Your task to perform on an android device: turn smart compose on in the gmail app Image 0: 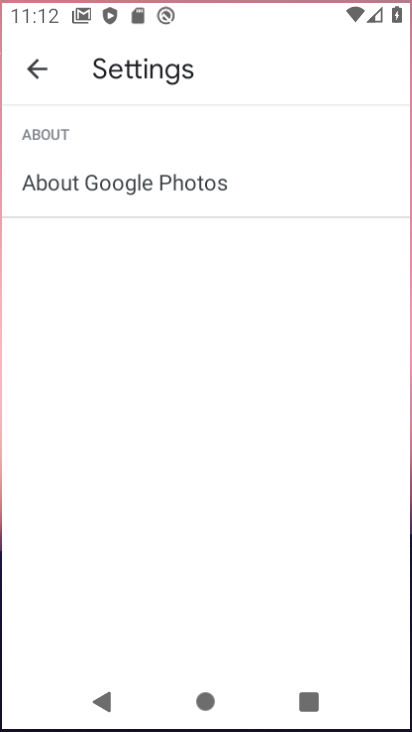
Step 0: press home button
Your task to perform on an android device: turn smart compose on in the gmail app Image 1: 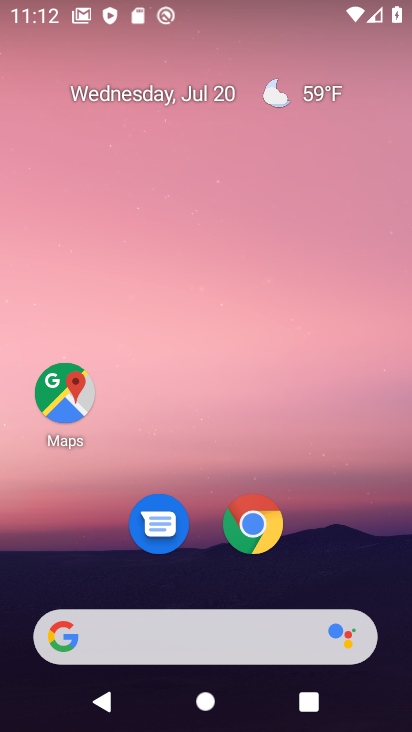
Step 1: drag from (179, 628) to (315, 92)
Your task to perform on an android device: turn smart compose on in the gmail app Image 2: 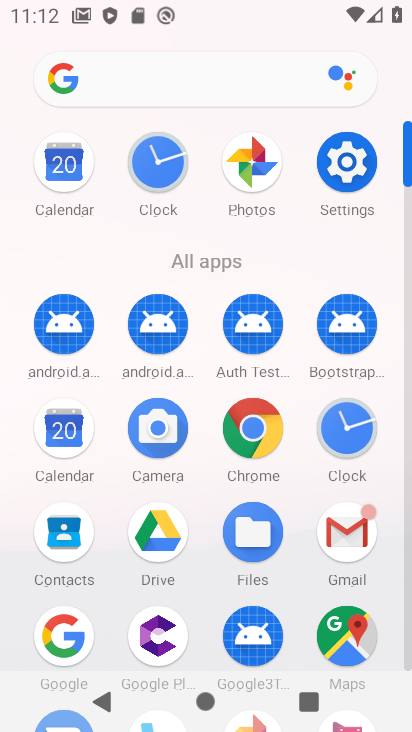
Step 2: click (340, 530)
Your task to perform on an android device: turn smart compose on in the gmail app Image 3: 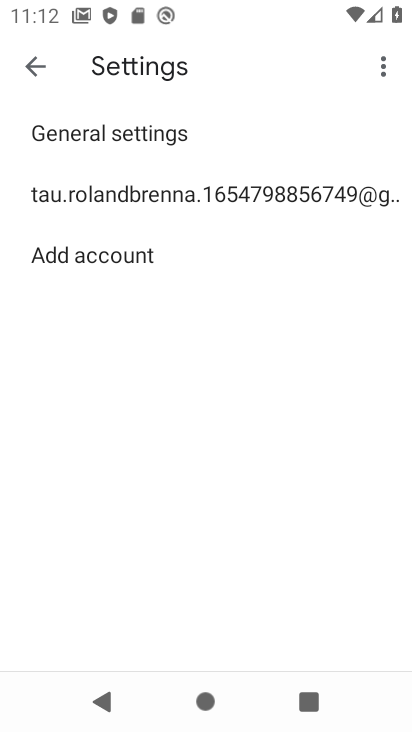
Step 3: click (259, 177)
Your task to perform on an android device: turn smart compose on in the gmail app Image 4: 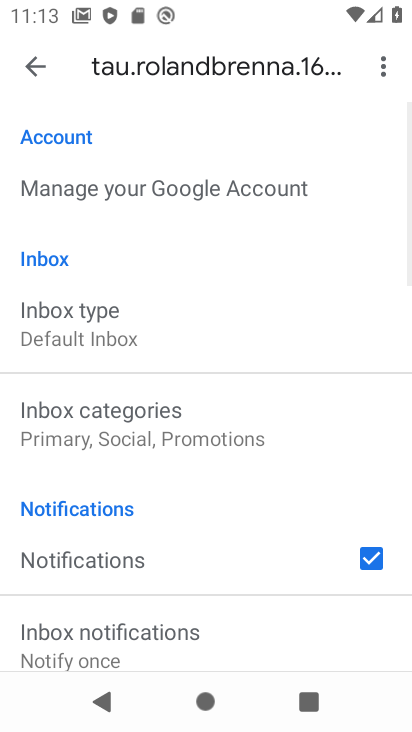
Step 4: task complete